Your task to perform on an android device: turn on javascript in the chrome app Image 0: 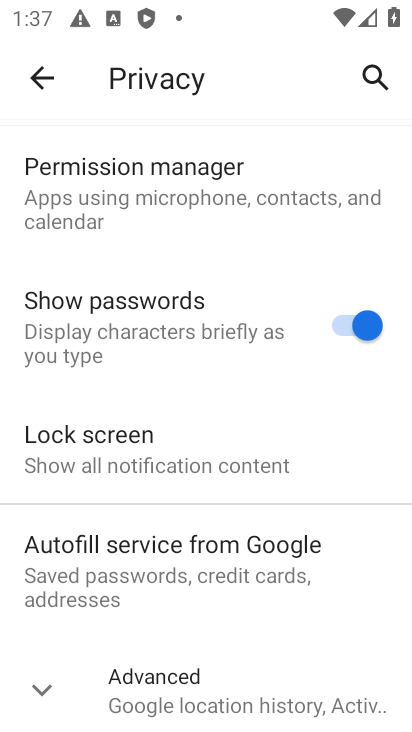
Step 0: press home button
Your task to perform on an android device: turn on javascript in the chrome app Image 1: 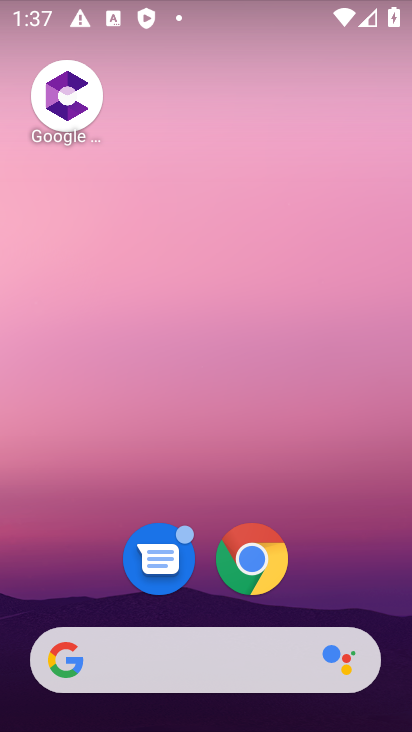
Step 1: click (260, 559)
Your task to perform on an android device: turn on javascript in the chrome app Image 2: 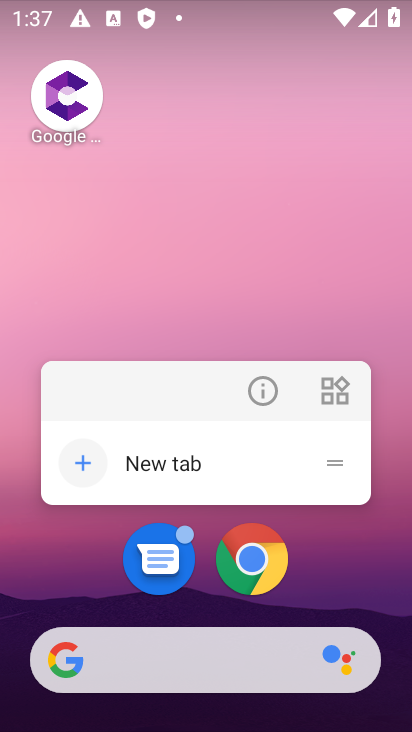
Step 2: click (256, 560)
Your task to perform on an android device: turn on javascript in the chrome app Image 3: 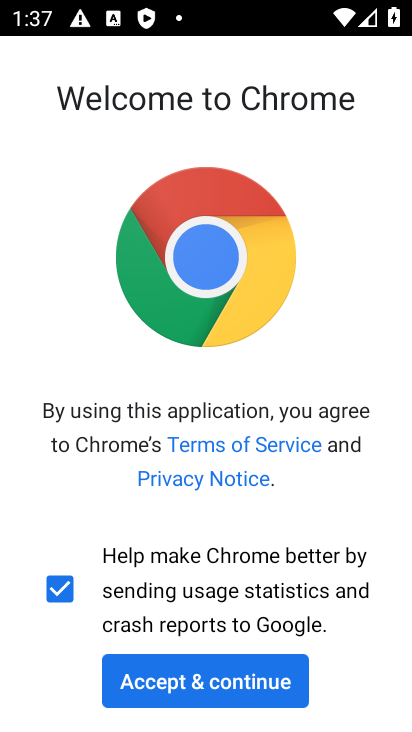
Step 3: click (271, 676)
Your task to perform on an android device: turn on javascript in the chrome app Image 4: 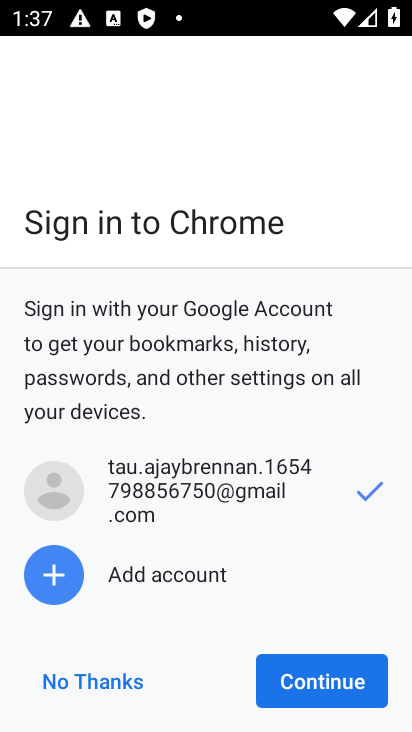
Step 4: click (294, 687)
Your task to perform on an android device: turn on javascript in the chrome app Image 5: 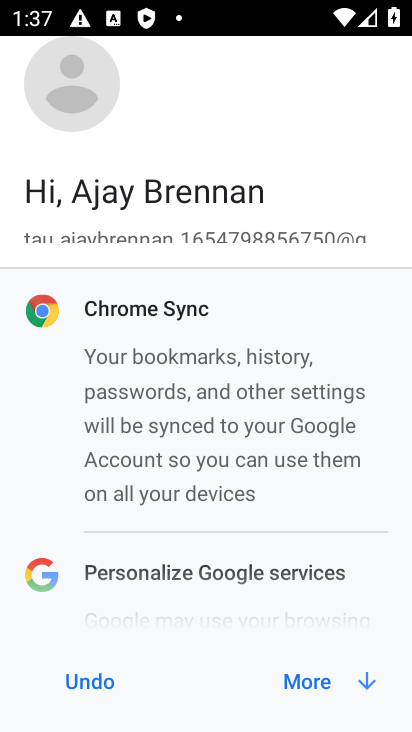
Step 5: click (303, 683)
Your task to perform on an android device: turn on javascript in the chrome app Image 6: 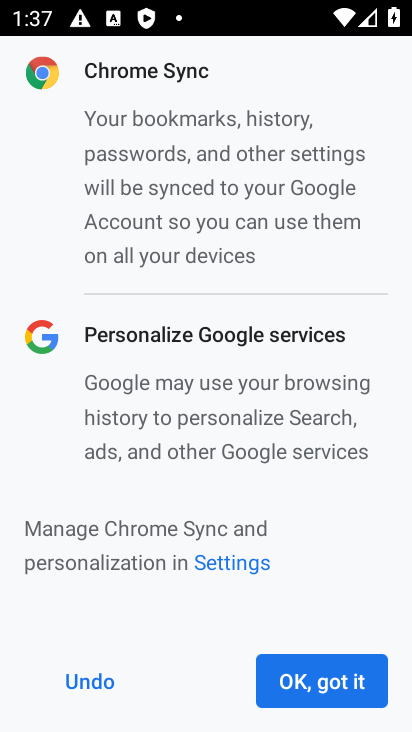
Step 6: click (304, 683)
Your task to perform on an android device: turn on javascript in the chrome app Image 7: 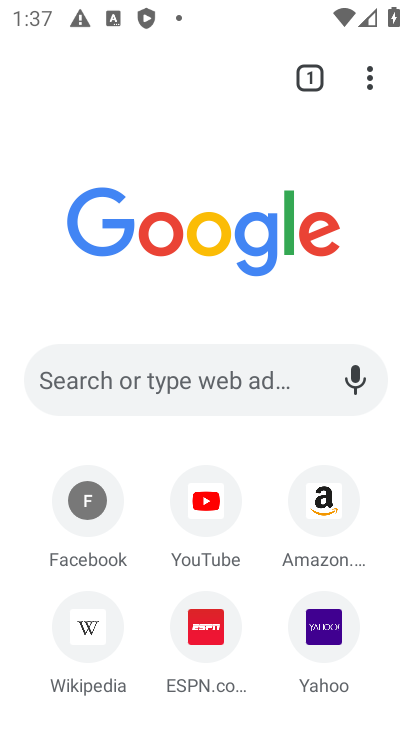
Step 7: click (366, 81)
Your task to perform on an android device: turn on javascript in the chrome app Image 8: 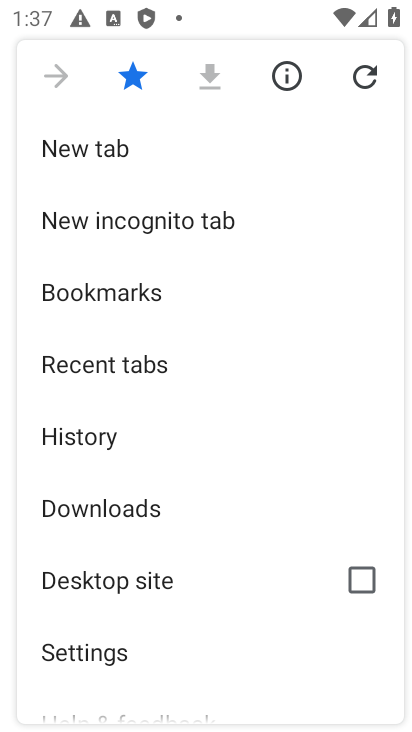
Step 8: click (129, 652)
Your task to perform on an android device: turn on javascript in the chrome app Image 9: 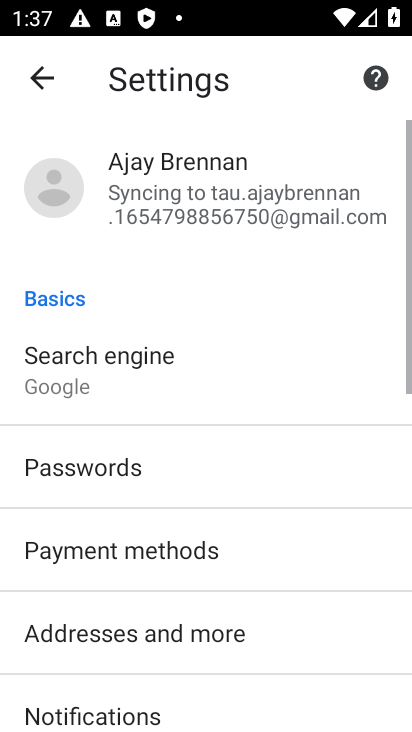
Step 9: drag from (244, 577) to (297, 79)
Your task to perform on an android device: turn on javascript in the chrome app Image 10: 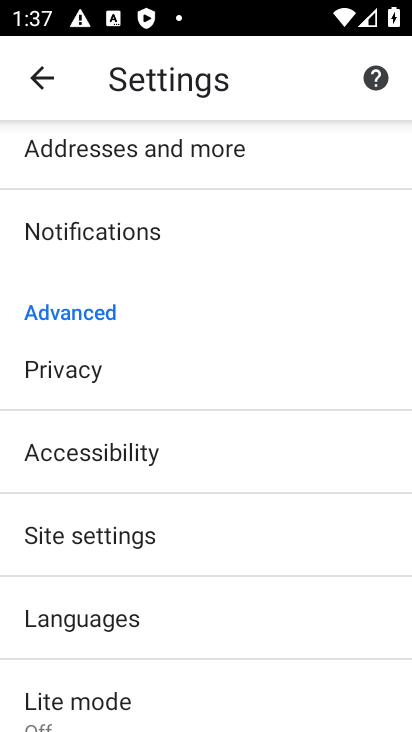
Step 10: click (131, 541)
Your task to perform on an android device: turn on javascript in the chrome app Image 11: 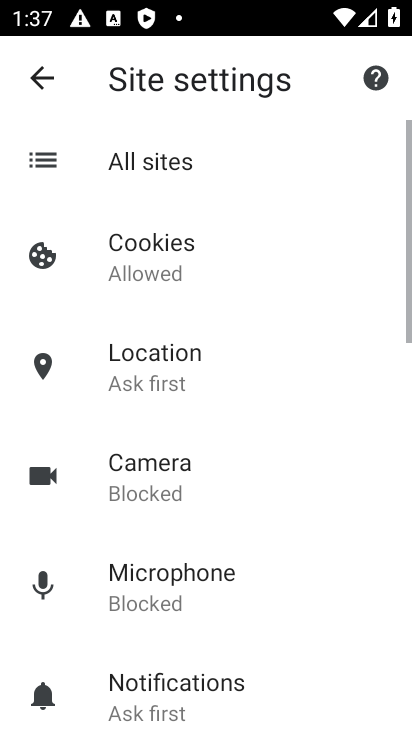
Step 11: drag from (184, 610) to (254, 59)
Your task to perform on an android device: turn on javascript in the chrome app Image 12: 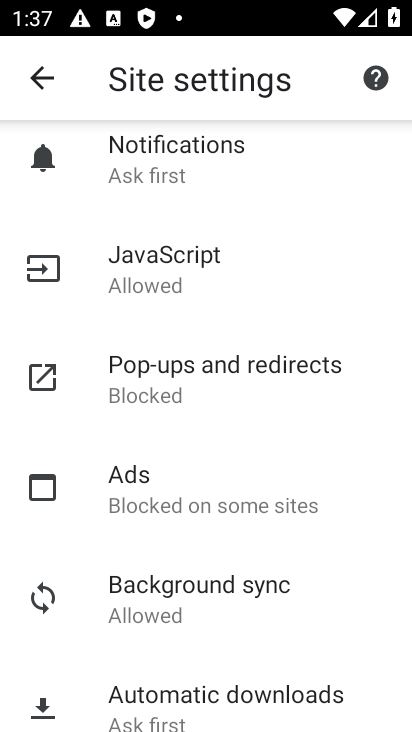
Step 12: click (200, 278)
Your task to perform on an android device: turn on javascript in the chrome app Image 13: 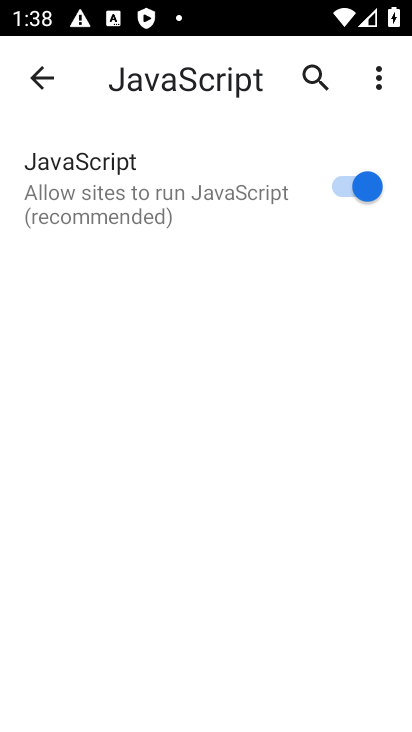
Step 13: task complete